Your task to perform on an android device: turn on location history Image 0: 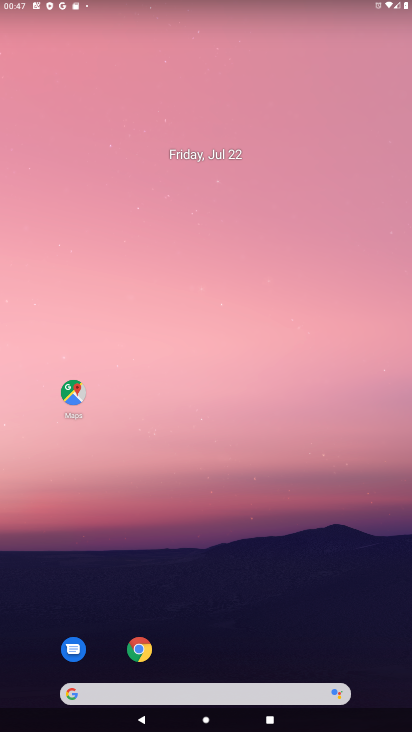
Step 0: drag from (315, 626) to (176, 96)
Your task to perform on an android device: turn on location history Image 1: 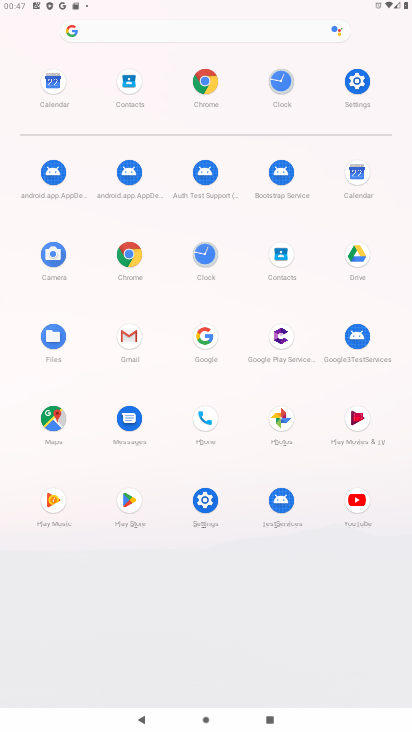
Step 1: click (357, 87)
Your task to perform on an android device: turn on location history Image 2: 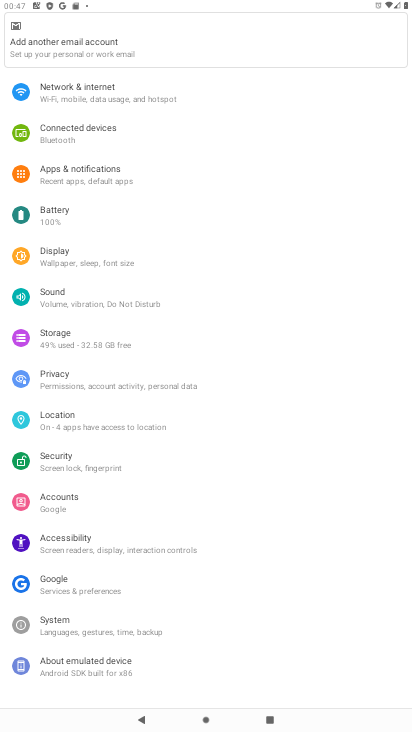
Step 2: click (80, 416)
Your task to perform on an android device: turn on location history Image 3: 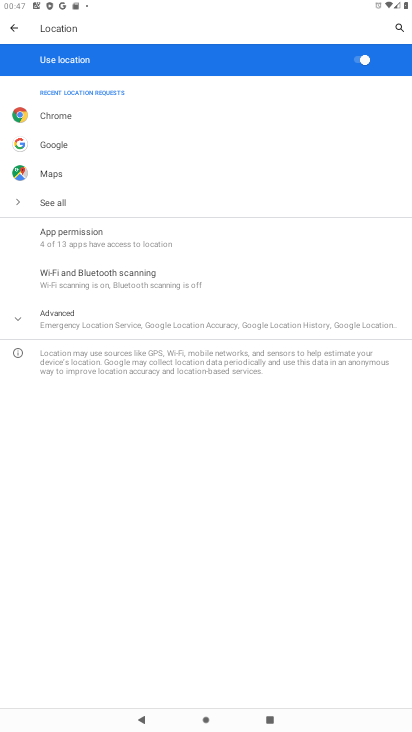
Step 3: click (94, 324)
Your task to perform on an android device: turn on location history Image 4: 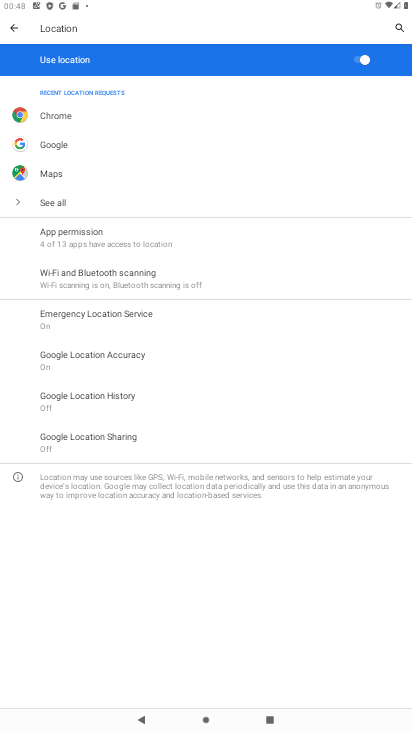
Step 4: click (84, 390)
Your task to perform on an android device: turn on location history Image 5: 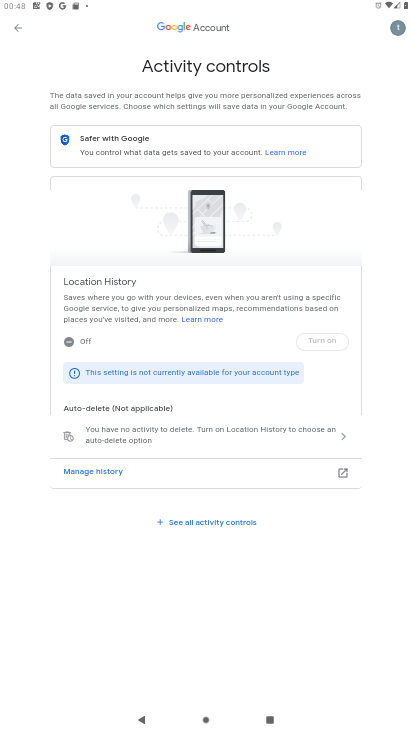
Step 5: press back button
Your task to perform on an android device: turn on location history Image 6: 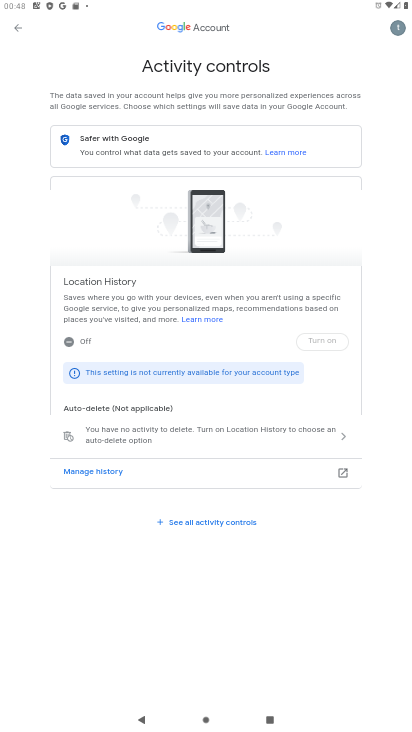
Step 6: press back button
Your task to perform on an android device: turn on location history Image 7: 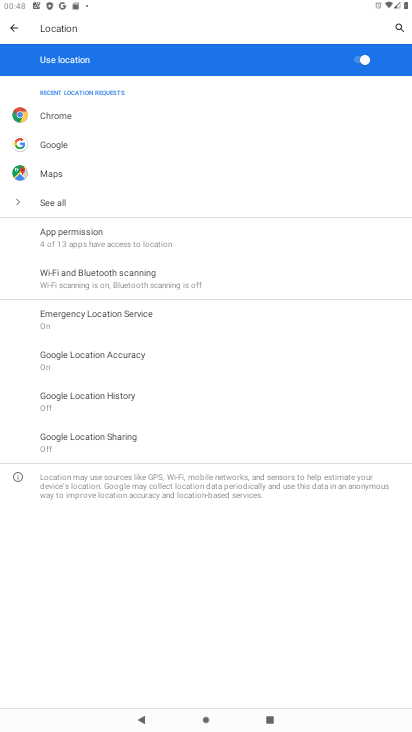
Step 7: click (127, 400)
Your task to perform on an android device: turn on location history Image 8: 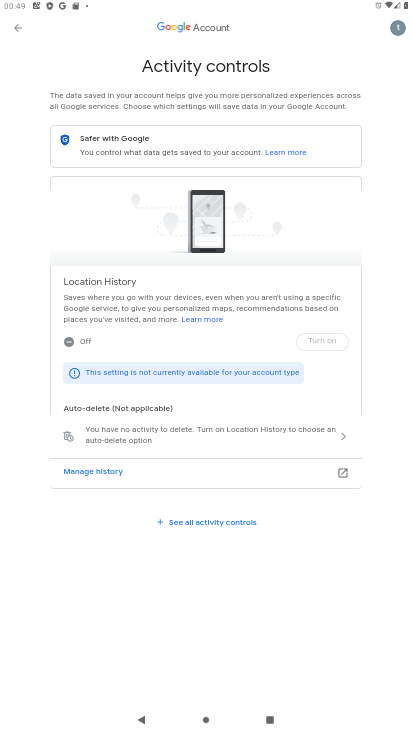
Step 8: click (322, 339)
Your task to perform on an android device: turn on location history Image 9: 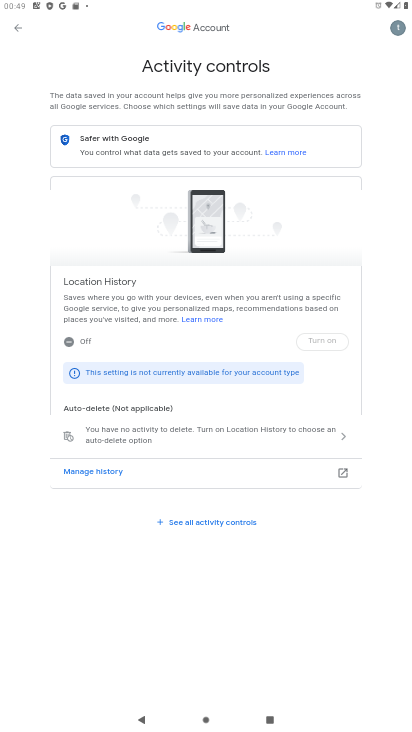
Step 9: task complete